Your task to perform on an android device: Open calendar and show me the third week of next month Image 0: 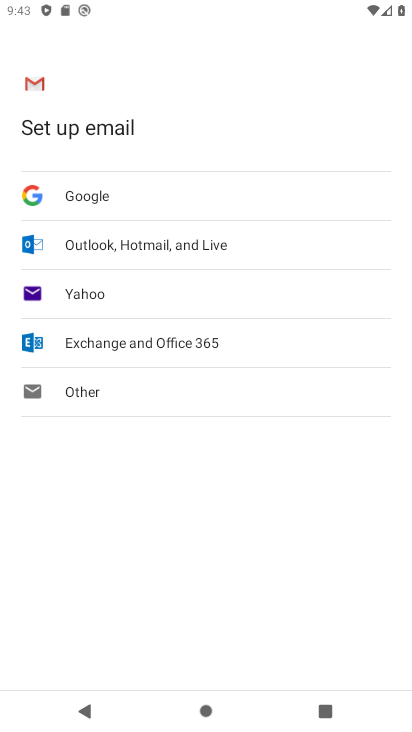
Step 0: click (277, 592)
Your task to perform on an android device: Open calendar and show me the third week of next month Image 1: 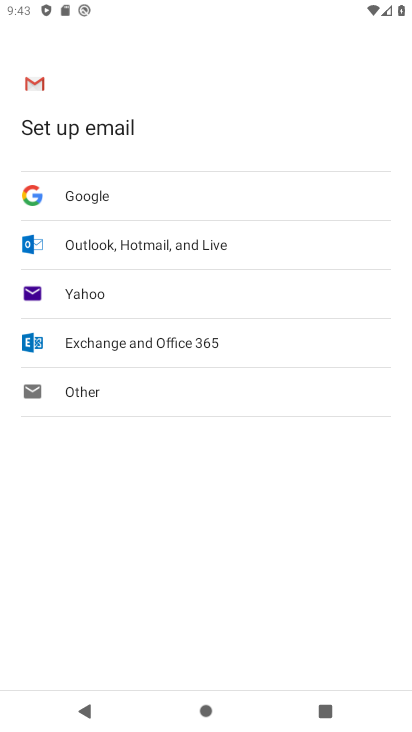
Step 1: press home button
Your task to perform on an android device: Open calendar and show me the third week of next month Image 2: 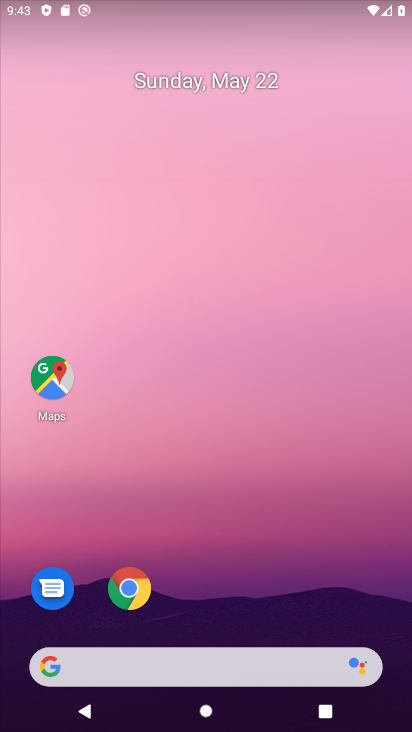
Step 2: drag from (285, 607) to (215, 148)
Your task to perform on an android device: Open calendar and show me the third week of next month Image 3: 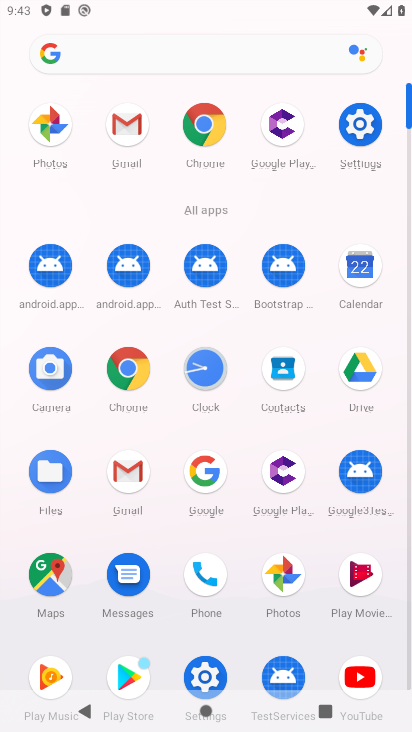
Step 3: click (364, 277)
Your task to perform on an android device: Open calendar and show me the third week of next month Image 4: 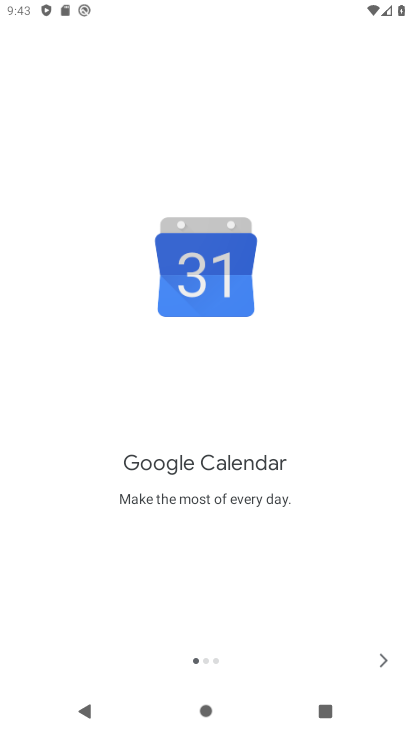
Step 4: click (376, 669)
Your task to perform on an android device: Open calendar and show me the third week of next month Image 5: 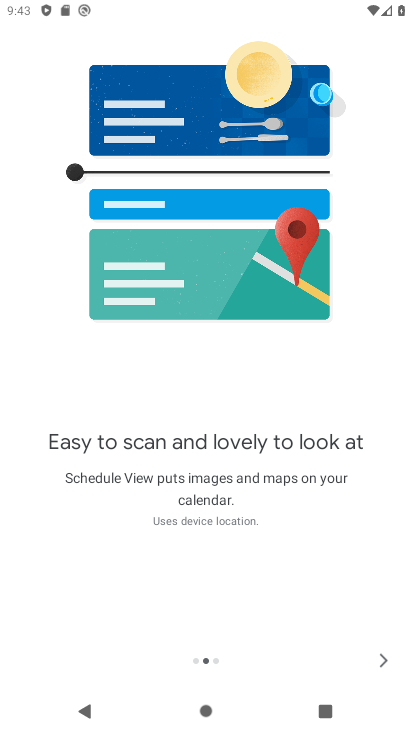
Step 5: click (376, 669)
Your task to perform on an android device: Open calendar and show me the third week of next month Image 6: 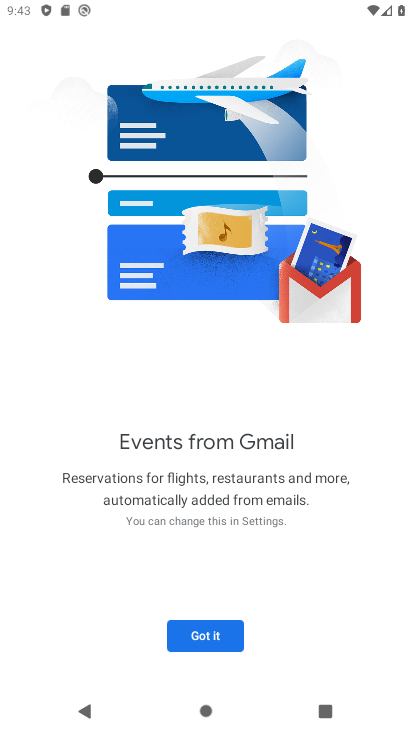
Step 6: click (376, 669)
Your task to perform on an android device: Open calendar and show me the third week of next month Image 7: 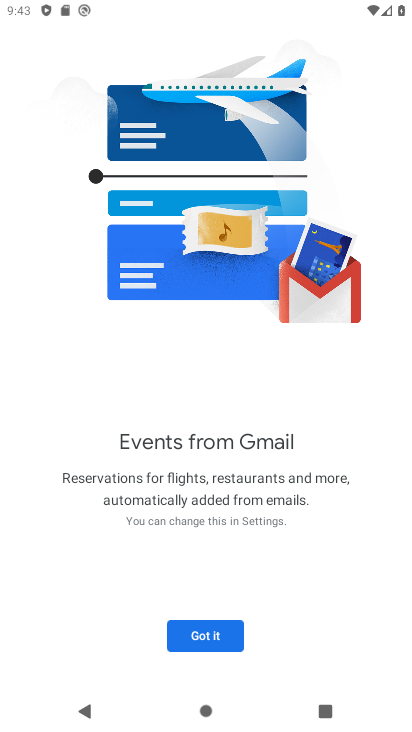
Step 7: click (279, 662)
Your task to perform on an android device: Open calendar and show me the third week of next month Image 8: 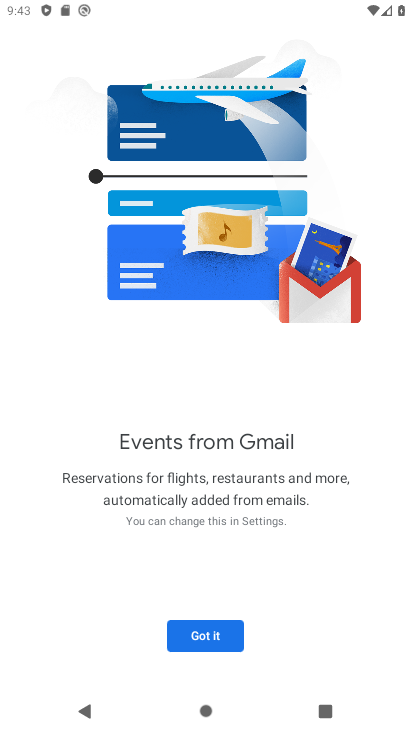
Step 8: click (236, 642)
Your task to perform on an android device: Open calendar and show me the third week of next month Image 9: 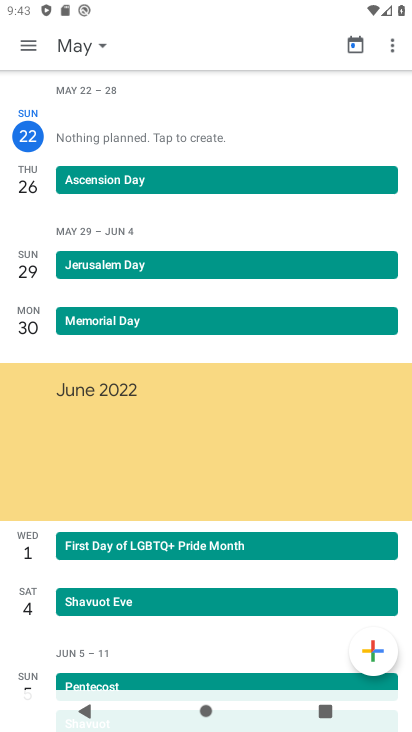
Step 9: click (25, 43)
Your task to perform on an android device: Open calendar and show me the third week of next month Image 10: 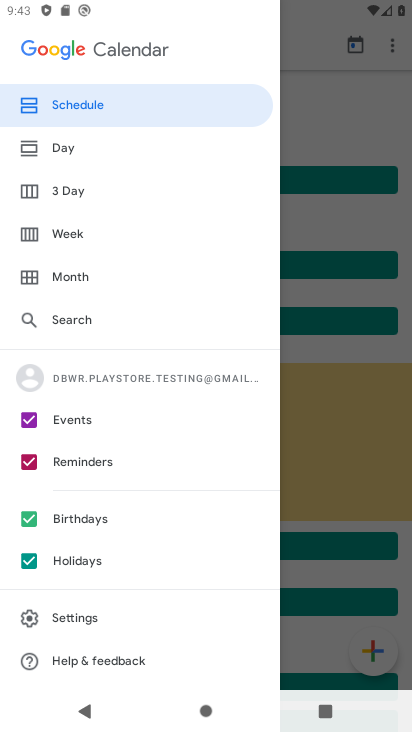
Step 10: click (111, 229)
Your task to perform on an android device: Open calendar and show me the third week of next month Image 11: 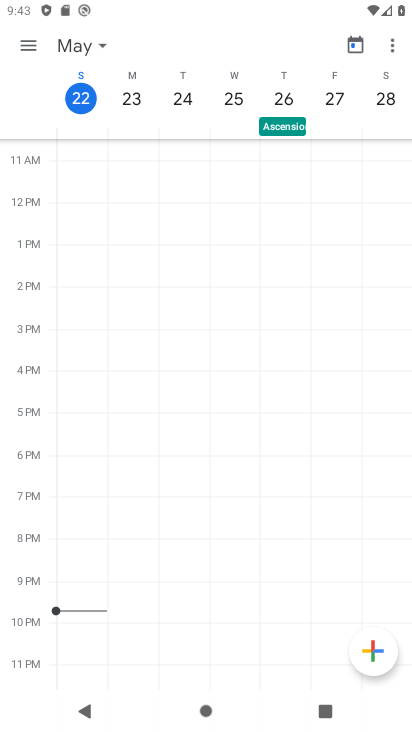
Step 11: click (91, 46)
Your task to perform on an android device: Open calendar and show me the third week of next month Image 12: 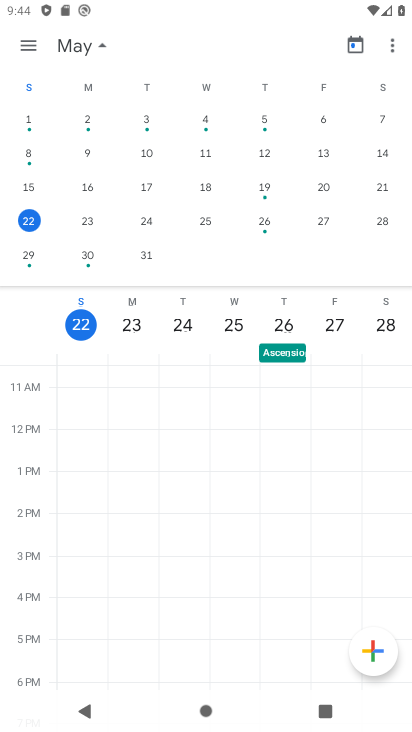
Step 12: drag from (385, 168) to (40, 186)
Your task to perform on an android device: Open calendar and show me the third week of next month Image 13: 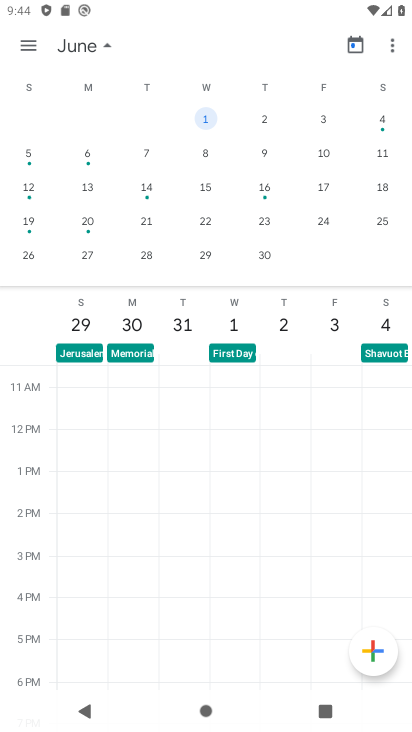
Step 13: click (197, 177)
Your task to perform on an android device: Open calendar and show me the third week of next month Image 14: 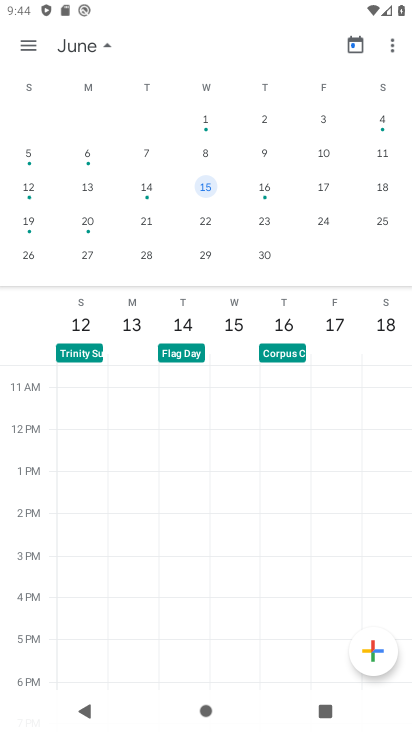
Step 14: task complete